Your task to perform on an android device: turn on the 24-hour format for clock Image 0: 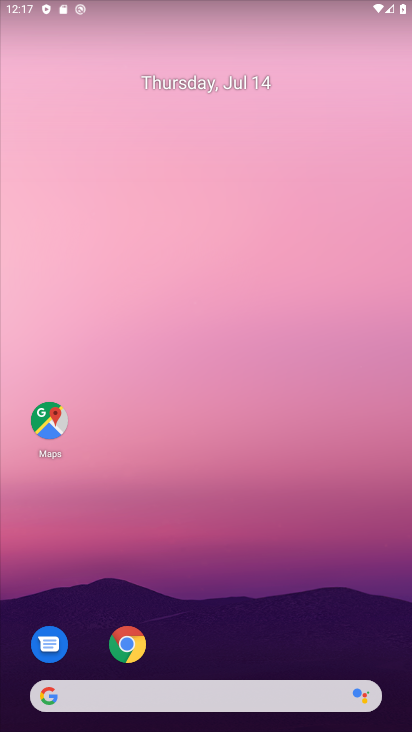
Step 0: drag from (223, 699) to (227, 184)
Your task to perform on an android device: turn on the 24-hour format for clock Image 1: 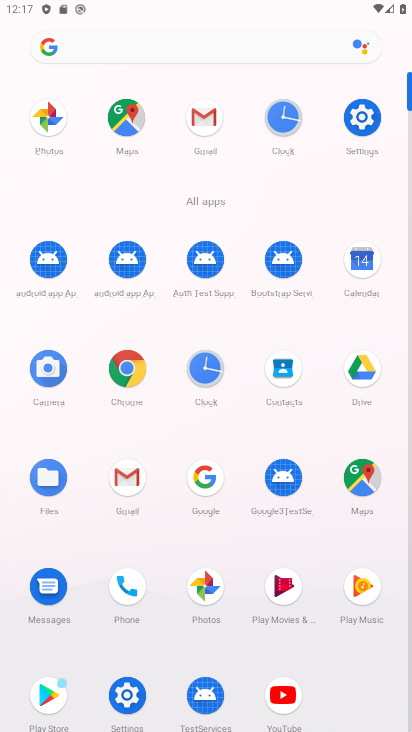
Step 1: click (223, 363)
Your task to perform on an android device: turn on the 24-hour format for clock Image 2: 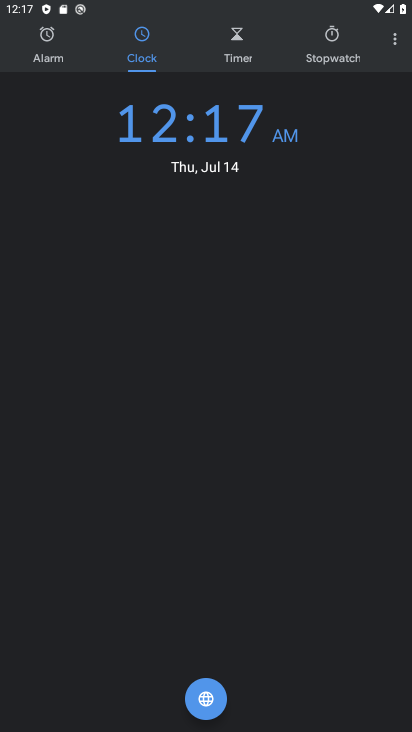
Step 2: click (390, 52)
Your task to perform on an android device: turn on the 24-hour format for clock Image 3: 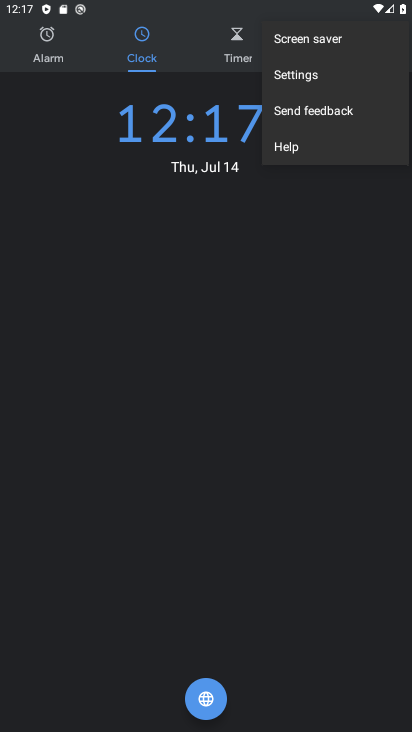
Step 3: click (305, 83)
Your task to perform on an android device: turn on the 24-hour format for clock Image 4: 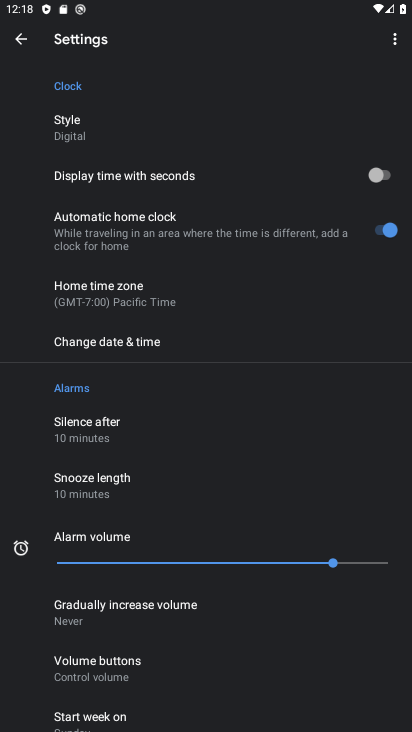
Step 4: click (144, 335)
Your task to perform on an android device: turn on the 24-hour format for clock Image 5: 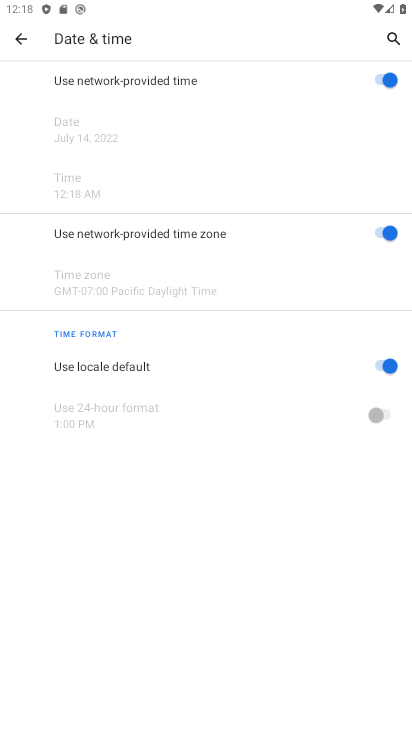
Step 5: click (369, 364)
Your task to perform on an android device: turn on the 24-hour format for clock Image 6: 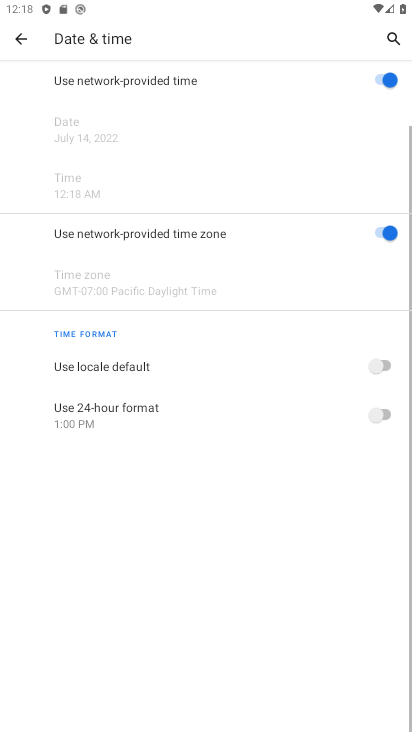
Step 6: click (382, 416)
Your task to perform on an android device: turn on the 24-hour format for clock Image 7: 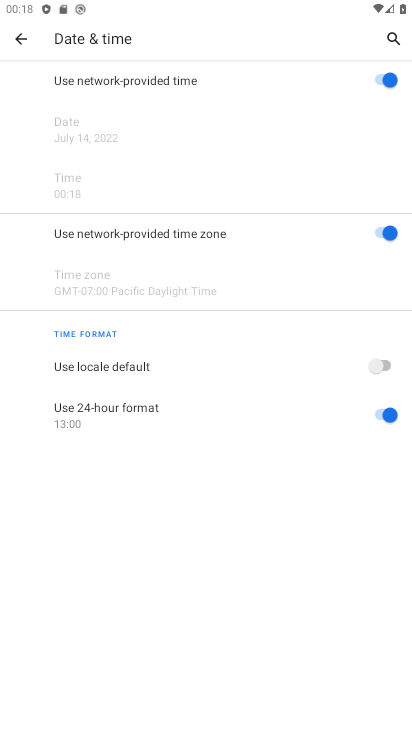
Step 7: task complete